Your task to perform on an android device: Clear the shopping cart on target. Search for sony triple a on target, select the first entry, and add it to the cart. Image 0: 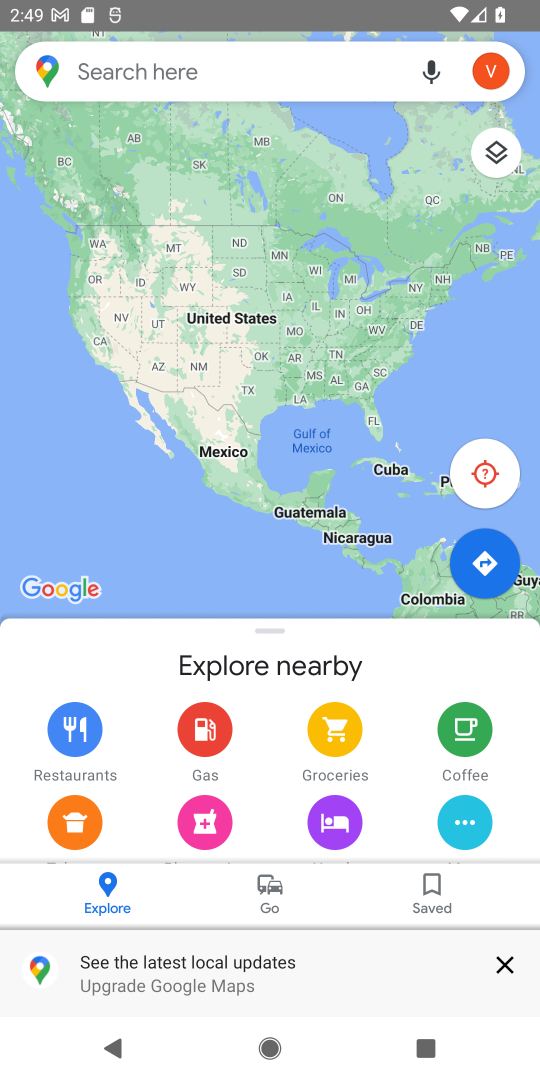
Step 0: press home button
Your task to perform on an android device: Clear the shopping cart on target. Search for sony triple a on target, select the first entry, and add it to the cart. Image 1: 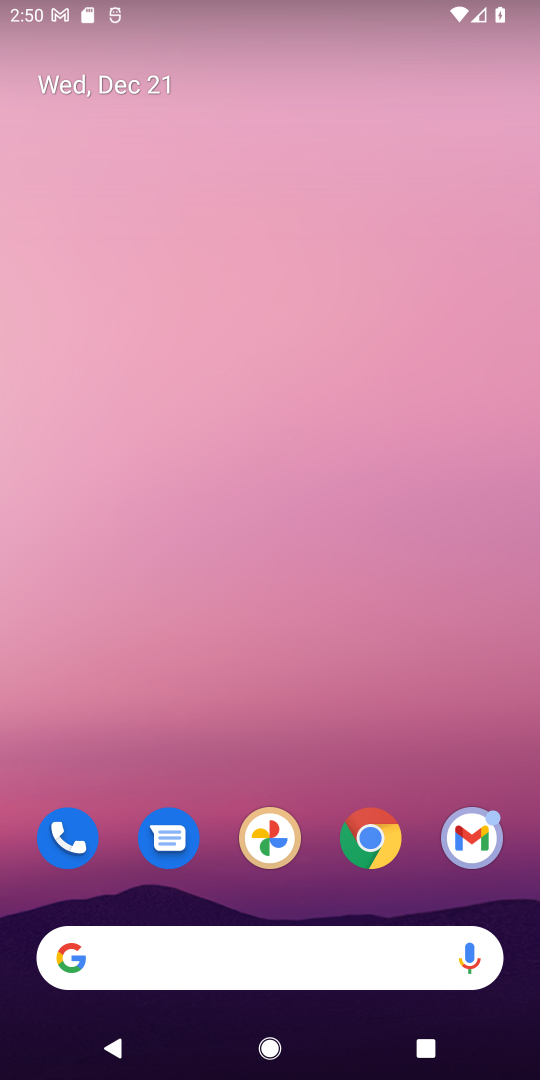
Step 1: click (389, 832)
Your task to perform on an android device: Clear the shopping cart on target. Search for sony triple a on target, select the first entry, and add it to the cart. Image 2: 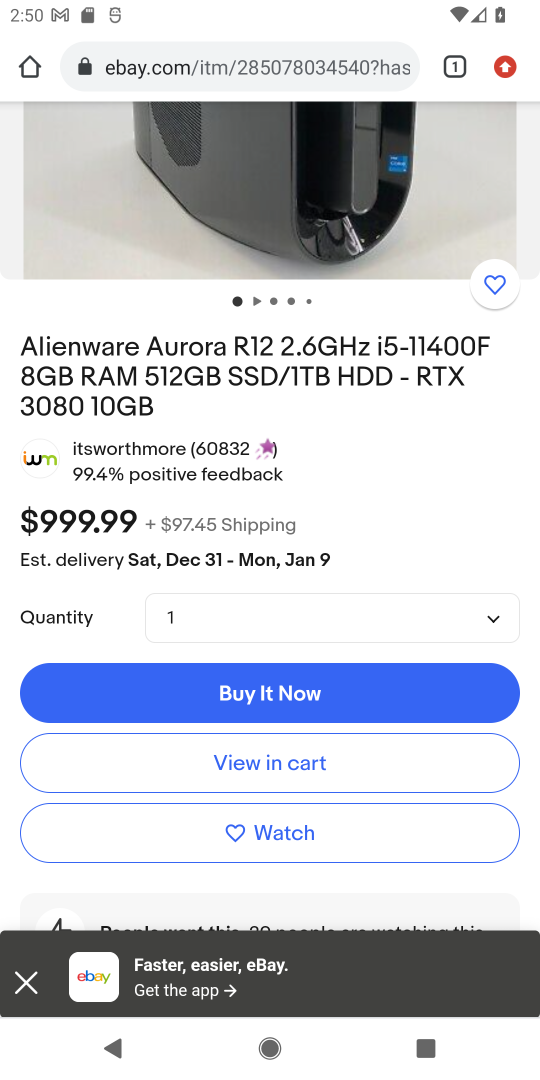
Step 2: click (303, 68)
Your task to perform on an android device: Clear the shopping cart on target. Search for sony triple a on target, select the first entry, and add it to the cart. Image 3: 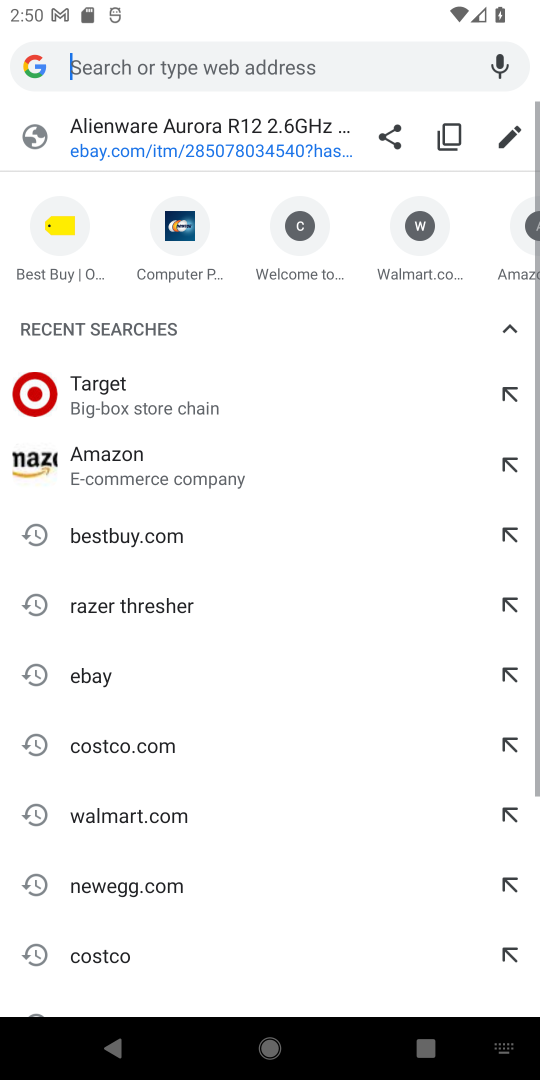
Step 3: type "target"
Your task to perform on an android device: Clear the shopping cart on target. Search for sony triple a on target, select the first entry, and add it to the cart. Image 4: 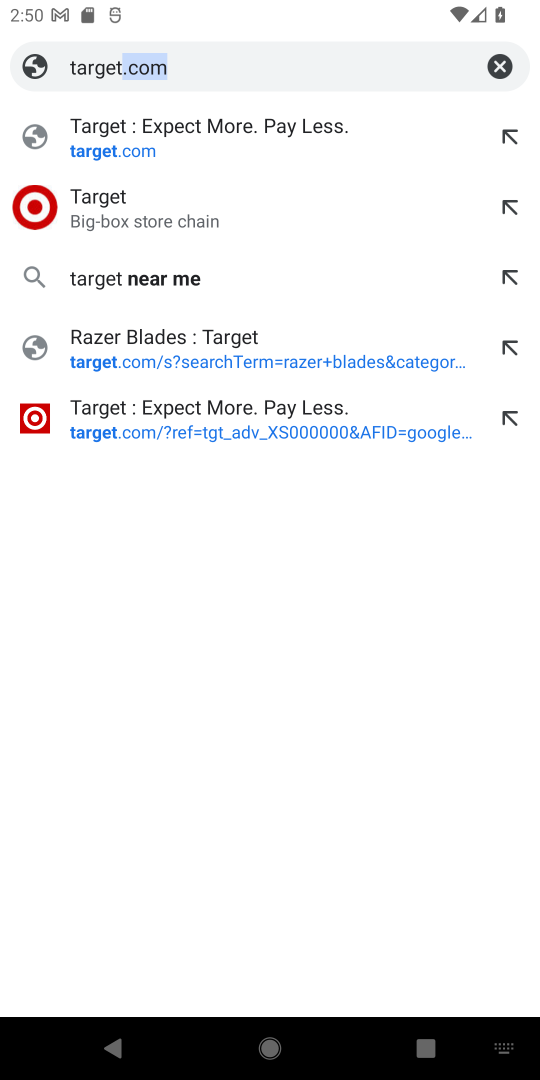
Step 4: click (103, 235)
Your task to perform on an android device: Clear the shopping cart on target. Search for sony triple a on target, select the first entry, and add it to the cart. Image 5: 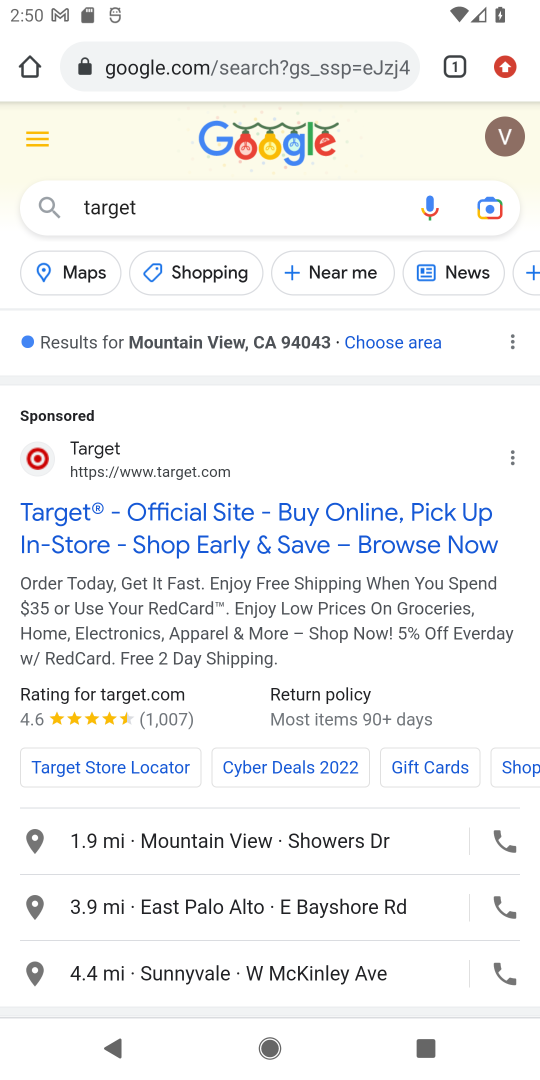
Step 5: click (152, 519)
Your task to perform on an android device: Clear the shopping cart on target. Search for sony triple a on target, select the first entry, and add it to the cart. Image 6: 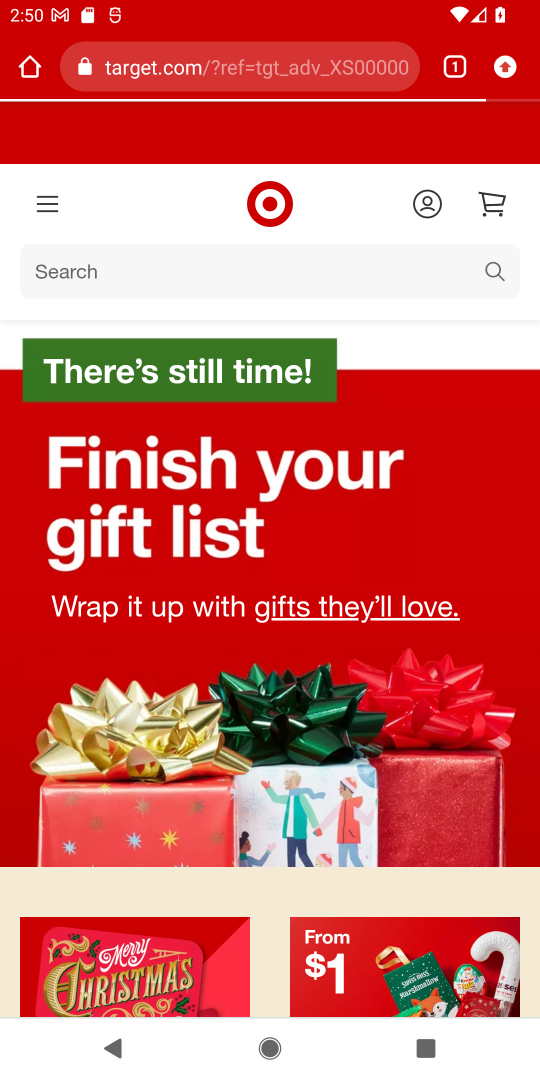
Step 6: click (200, 289)
Your task to perform on an android device: Clear the shopping cart on target. Search for sony triple a on target, select the first entry, and add it to the cart. Image 7: 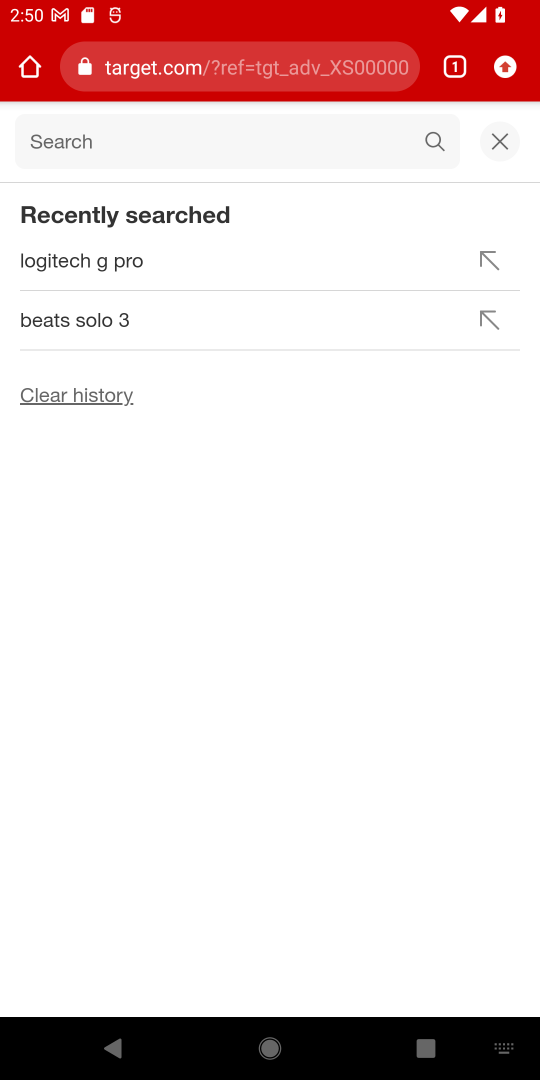
Step 7: type "sony triple a"
Your task to perform on an android device: Clear the shopping cart on target. Search for sony triple a on target, select the first entry, and add it to the cart. Image 8: 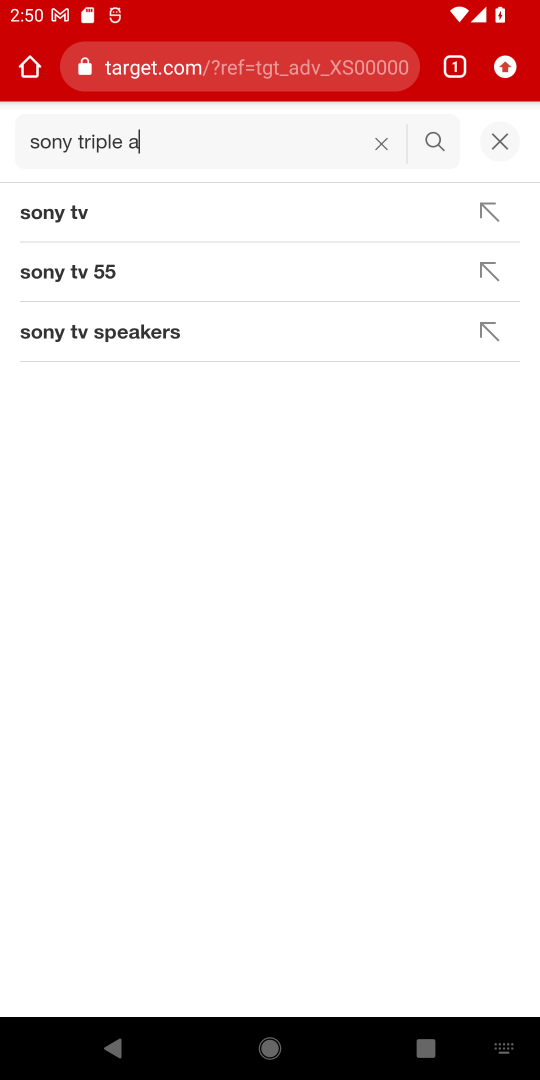
Step 8: click (442, 146)
Your task to perform on an android device: Clear the shopping cart on target. Search for sony triple a on target, select the first entry, and add it to the cart. Image 9: 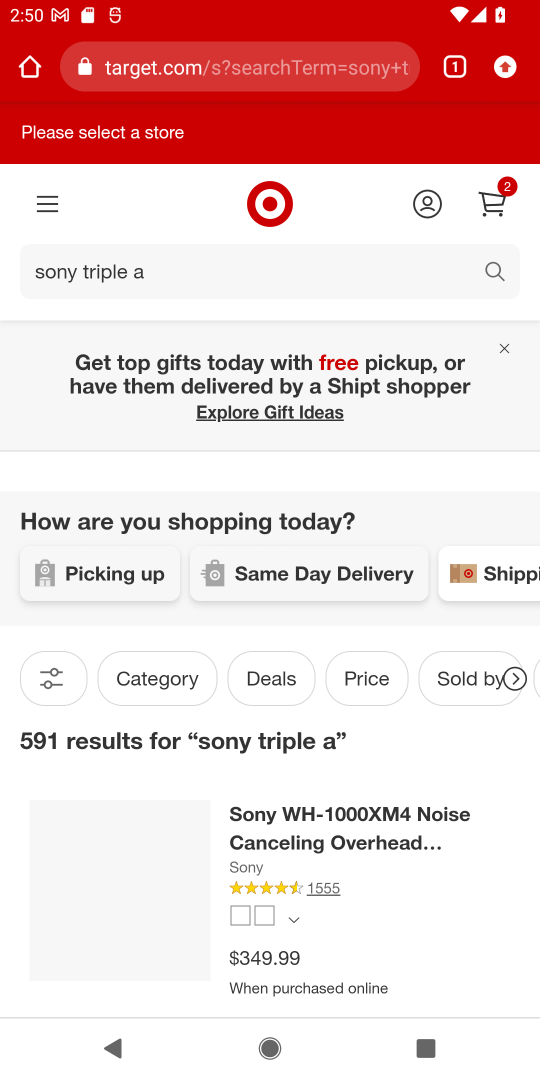
Step 9: drag from (404, 938) to (385, 566)
Your task to perform on an android device: Clear the shopping cart on target. Search for sony triple a on target, select the first entry, and add it to the cart. Image 10: 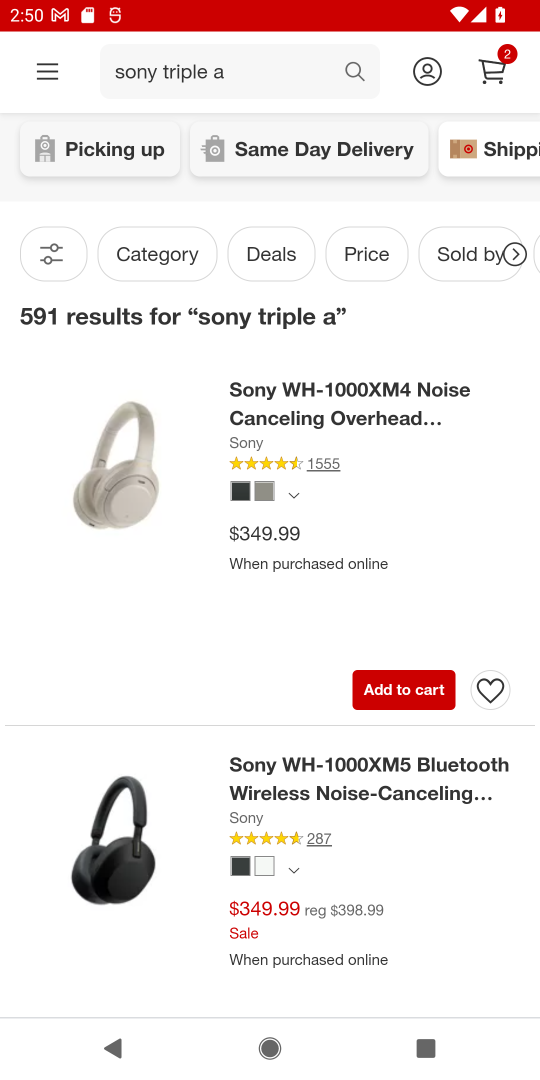
Step 10: click (381, 683)
Your task to perform on an android device: Clear the shopping cart on target. Search for sony triple a on target, select the first entry, and add it to the cart. Image 11: 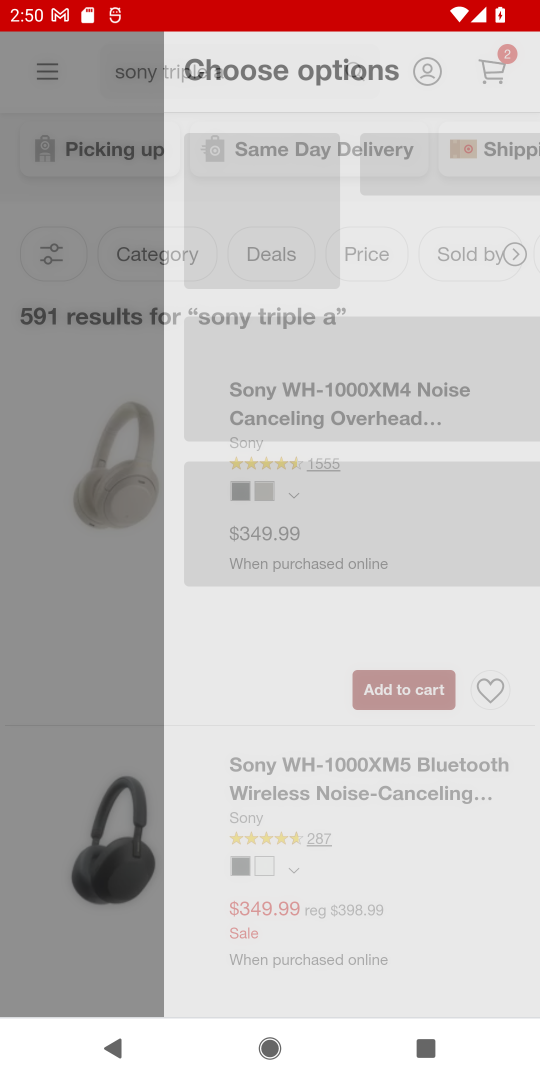
Step 11: task complete